Your task to perform on an android device: find which apps use the phone's location Image 0: 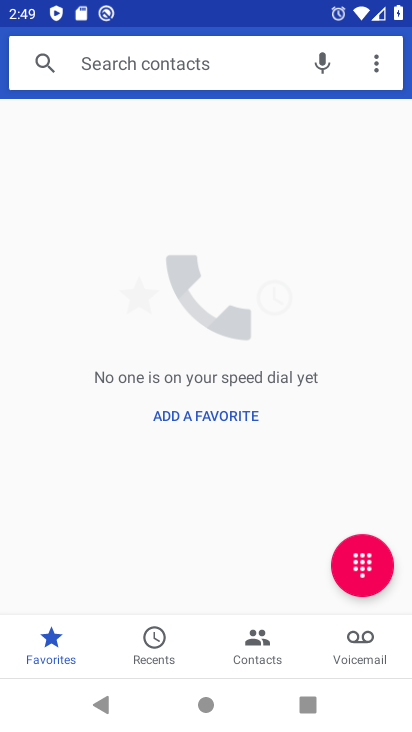
Step 0: press home button
Your task to perform on an android device: find which apps use the phone's location Image 1: 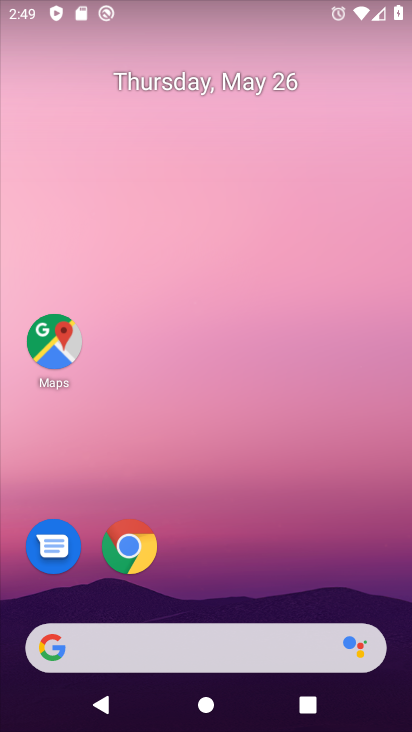
Step 1: drag from (392, 681) to (354, 334)
Your task to perform on an android device: find which apps use the phone's location Image 2: 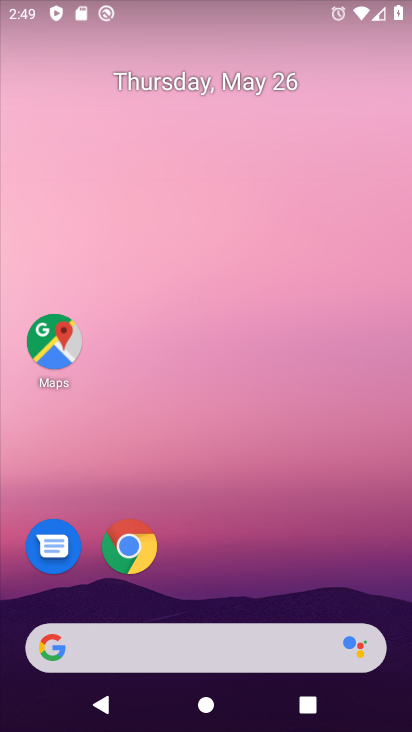
Step 2: drag from (397, 697) to (363, 125)
Your task to perform on an android device: find which apps use the phone's location Image 3: 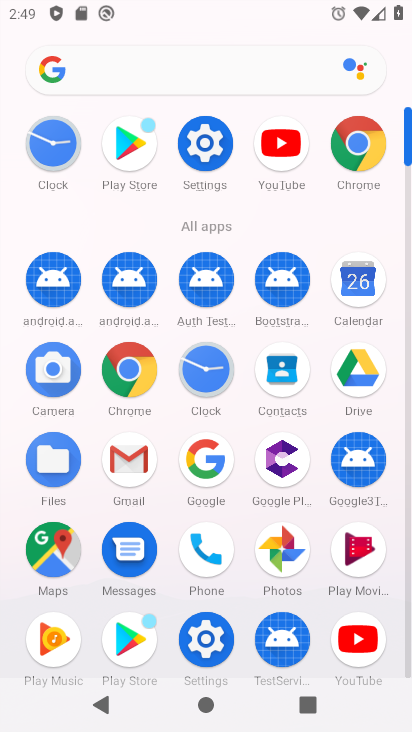
Step 3: click (195, 153)
Your task to perform on an android device: find which apps use the phone's location Image 4: 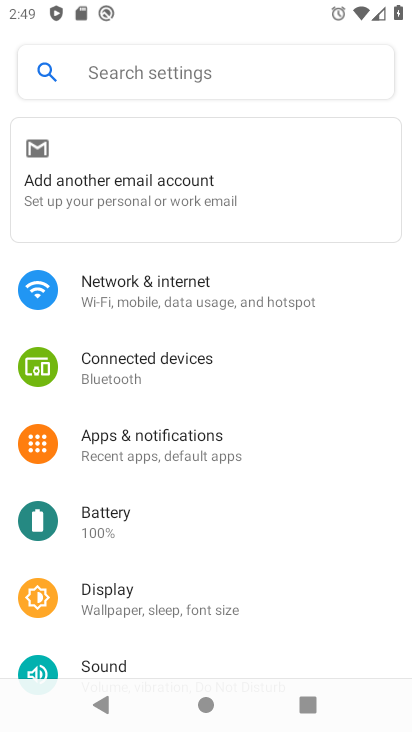
Step 4: drag from (306, 639) to (292, 301)
Your task to perform on an android device: find which apps use the phone's location Image 5: 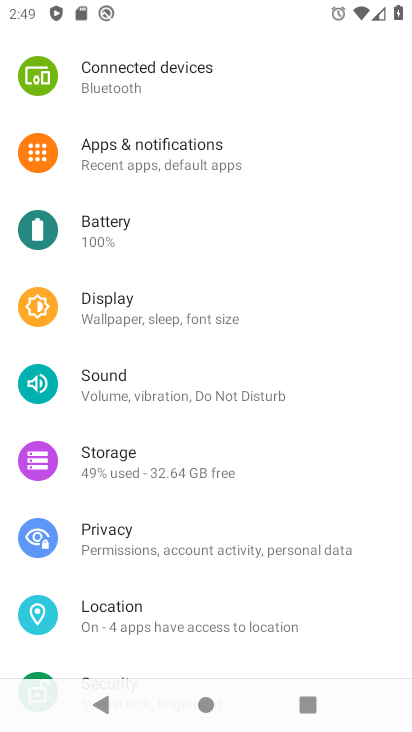
Step 5: drag from (361, 640) to (349, 274)
Your task to perform on an android device: find which apps use the phone's location Image 6: 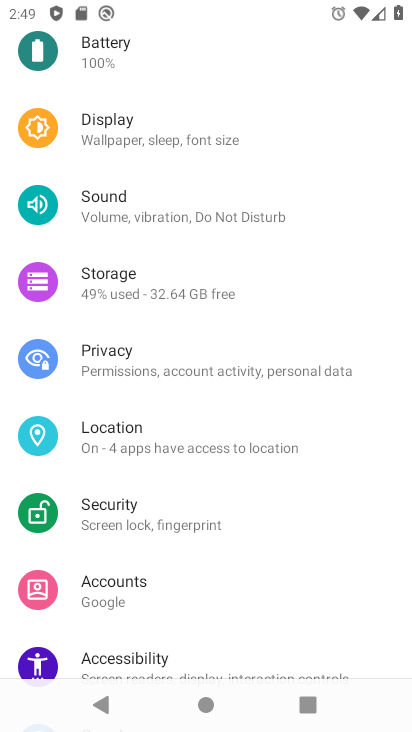
Step 6: click (139, 438)
Your task to perform on an android device: find which apps use the phone's location Image 7: 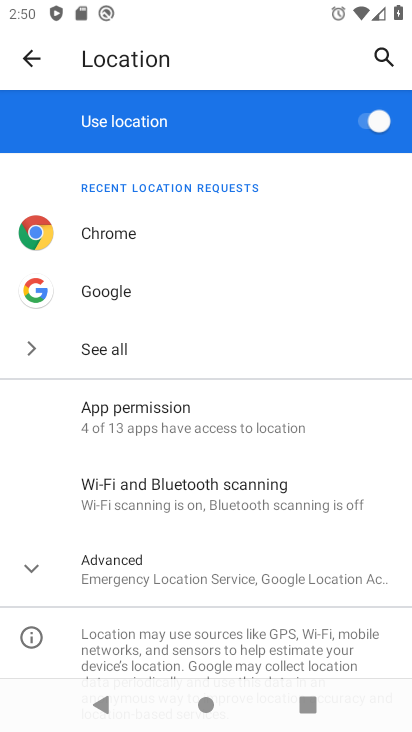
Step 7: click (109, 408)
Your task to perform on an android device: find which apps use the phone's location Image 8: 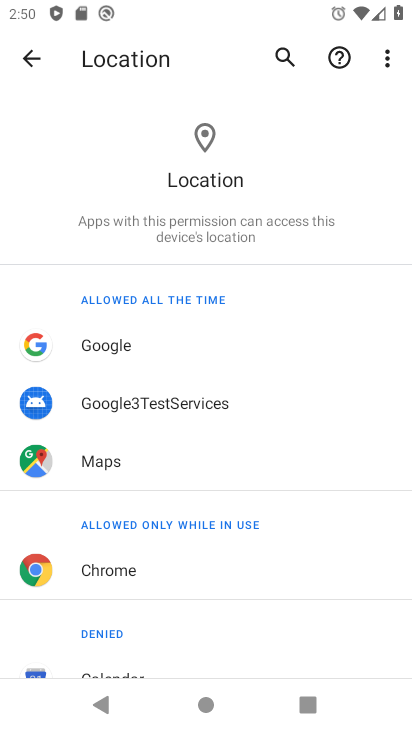
Step 8: task complete